Your task to perform on an android device: turn notification dots off Image 0: 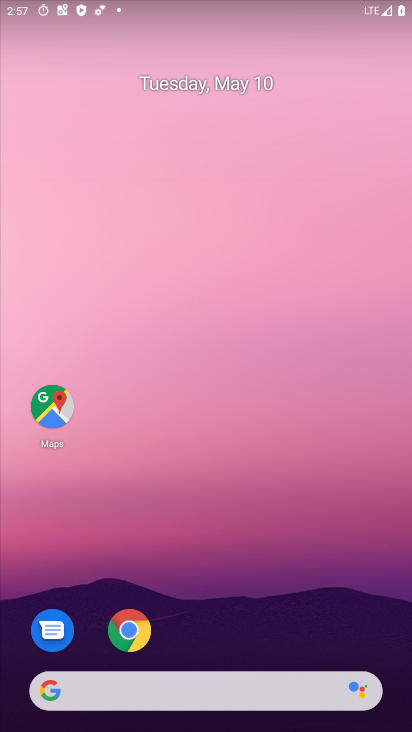
Step 0: drag from (221, 641) to (338, 142)
Your task to perform on an android device: turn notification dots off Image 1: 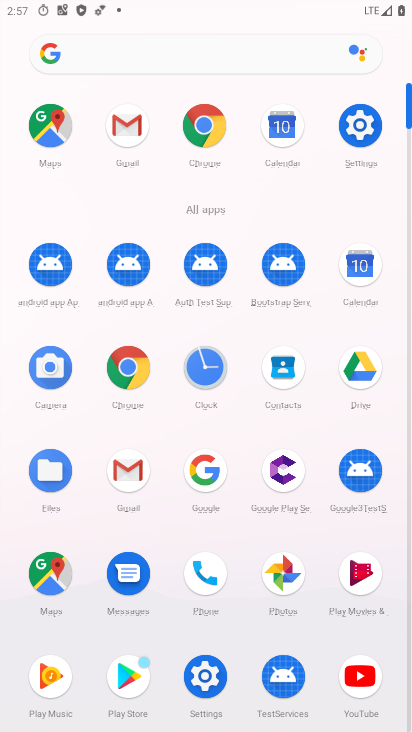
Step 1: drag from (246, 645) to (345, 227)
Your task to perform on an android device: turn notification dots off Image 2: 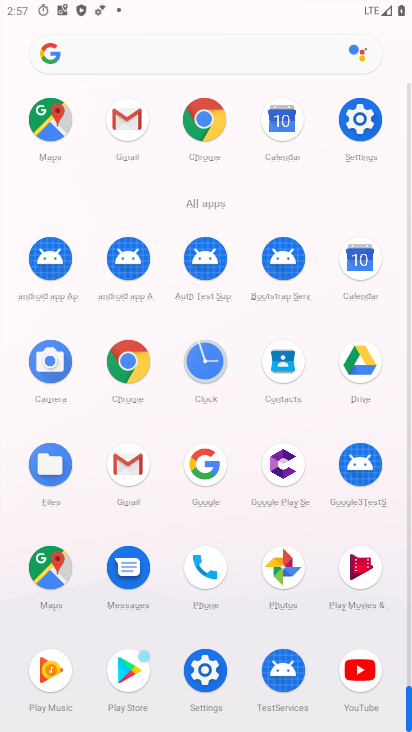
Step 2: click (341, 122)
Your task to perform on an android device: turn notification dots off Image 3: 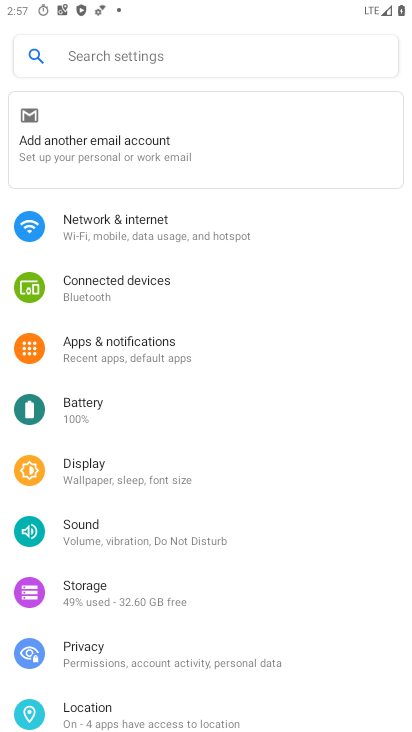
Step 3: drag from (177, 299) to (157, 343)
Your task to perform on an android device: turn notification dots off Image 4: 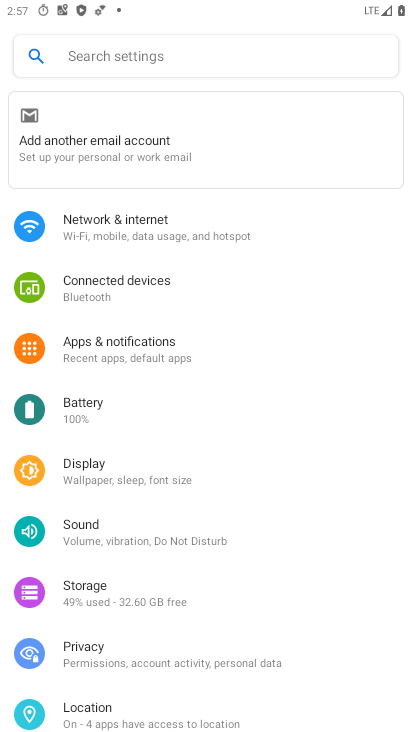
Step 4: click (145, 356)
Your task to perform on an android device: turn notification dots off Image 5: 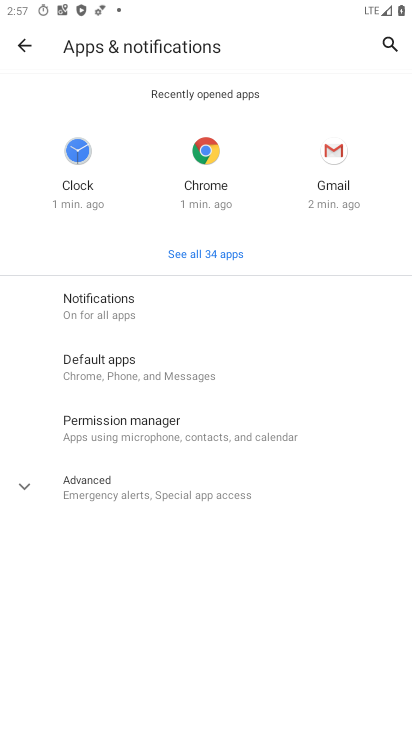
Step 5: click (105, 306)
Your task to perform on an android device: turn notification dots off Image 6: 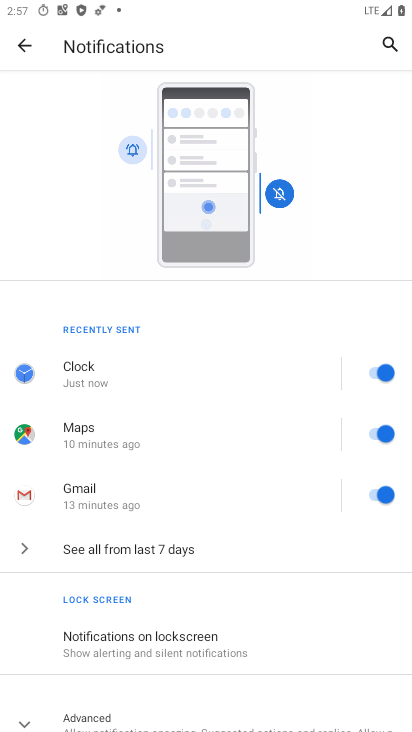
Step 6: drag from (214, 564) to (246, 229)
Your task to perform on an android device: turn notification dots off Image 7: 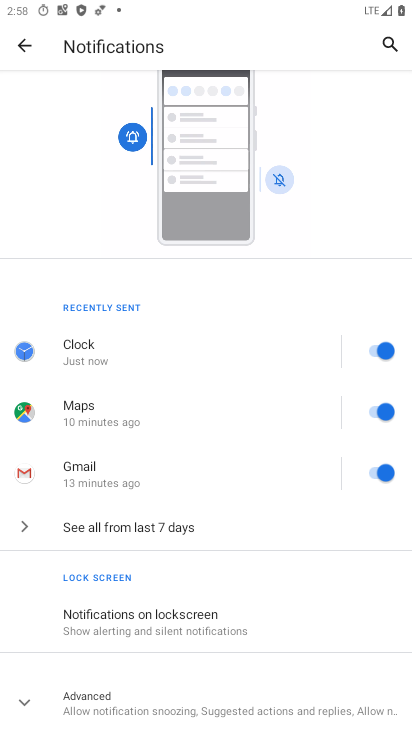
Step 7: click (202, 695)
Your task to perform on an android device: turn notification dots off Image 8: 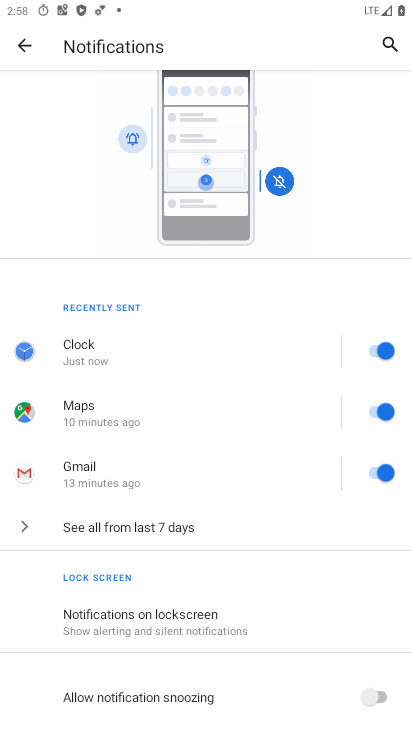
Step 8: drag from (190, 642) to (225, 427)
Your task to perform on an android device: turn notification dots off Image 9: 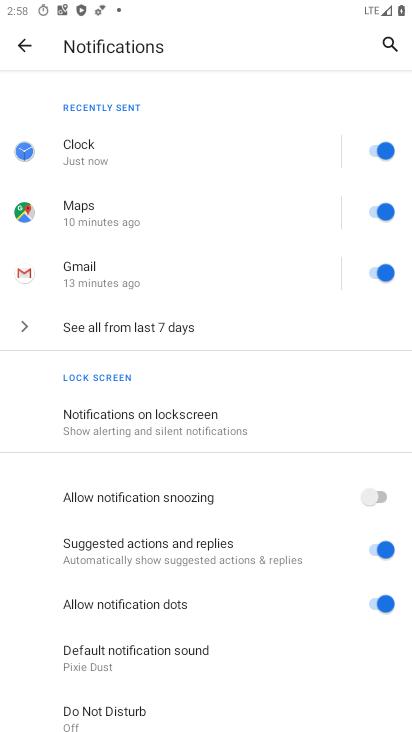
Step 9: click (368, 500)
Your task to perform on an android device: turn notification dots off Image 10: 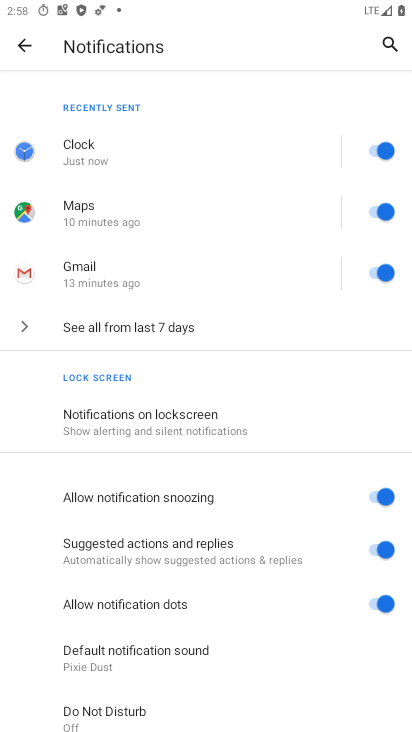
Step 10: task complete